Your task to perform on an android device: turn pop-ups on in chrome Image 0: 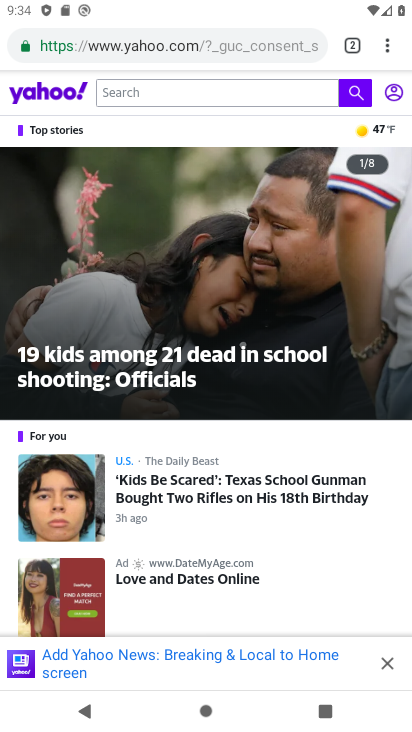
Step 0: click (390, 50)
Your task to perform on an android device: turn pop-ups on in chrome Image 1: 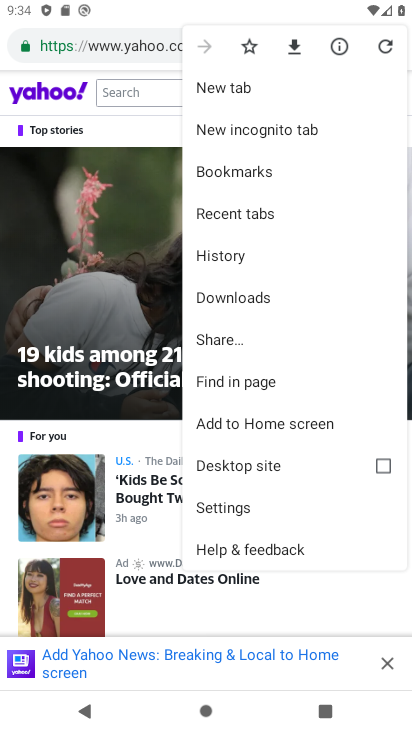
Step 1: click (214, 510)
Your task to perform on an android device: turn pop-ups on in chrome Image 2: 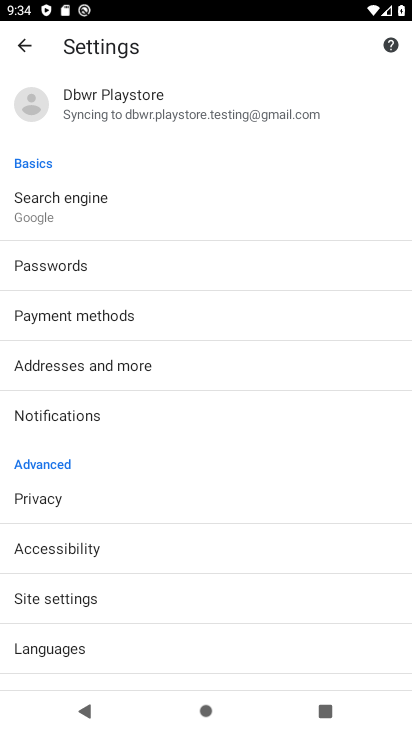
Step 2: click (47, 600)
Your task to perform on an android device: turn pop-ups on in chrome Image 3: 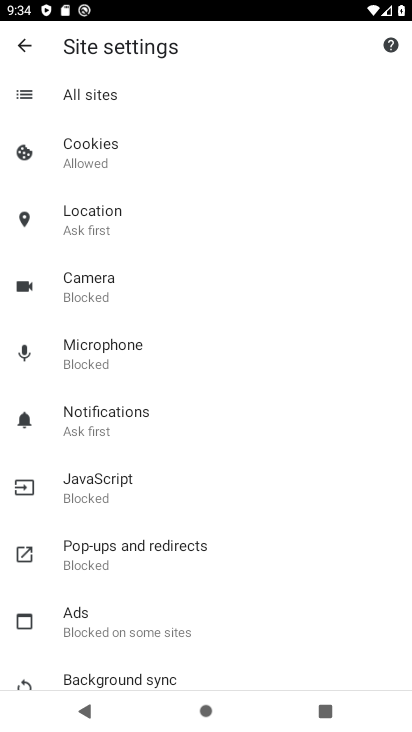
Step 3: click (139, 553)
Your task to perform on an android device: turn pop-ups on in chrome Image 4: 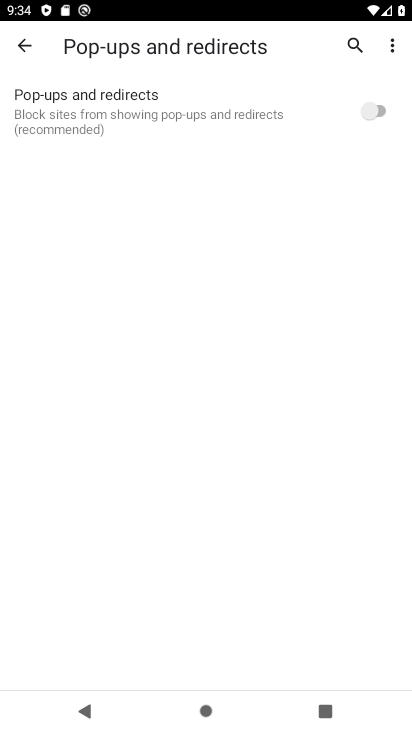
Step 4: click (389, 104)
Your task to perform on an android device: turn pop-ups on in chrome Image 5: 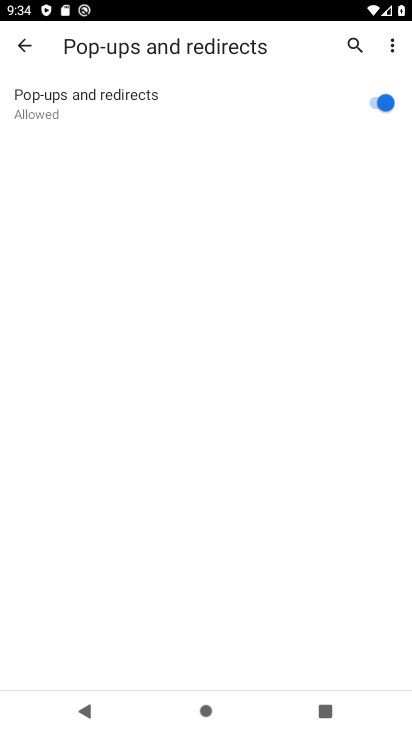
Step 5: task complete